Your task to perform on an android device: Go to ESPN.com Image 0: 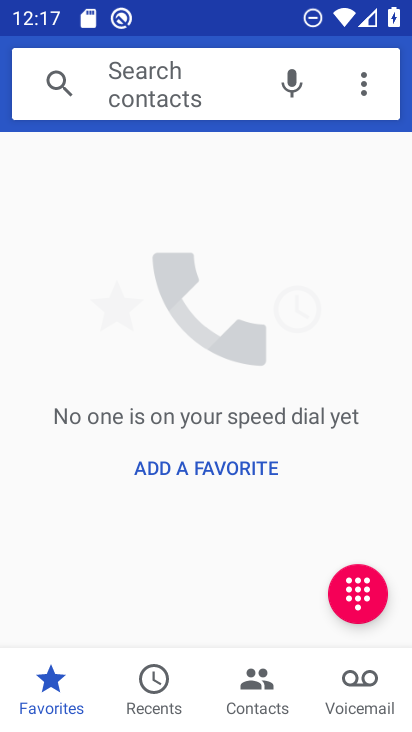
Step 0: press home button
Your task to perform on an android device: Go to ESPN.com Image 1: 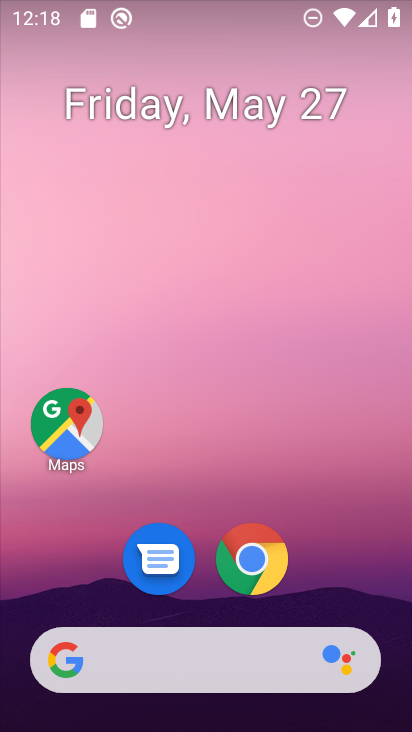
Step 1: click (253, 584)
Your task to perform on an android device: Go to ESPN.com Image 2: 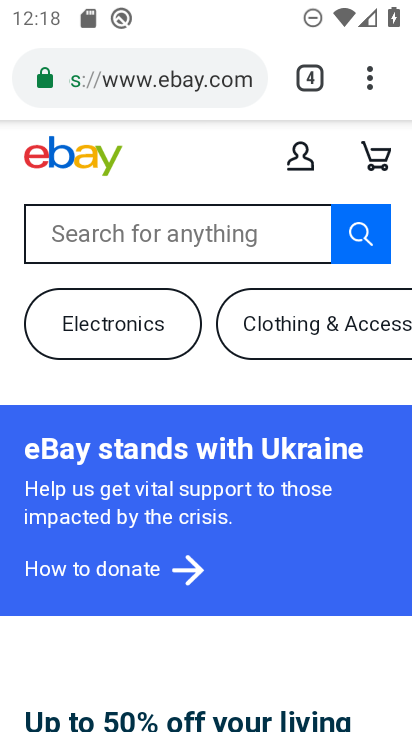
Step 2: click (151, 82)
Your task to perform on an android device: Go to ESPN.com Image 3: 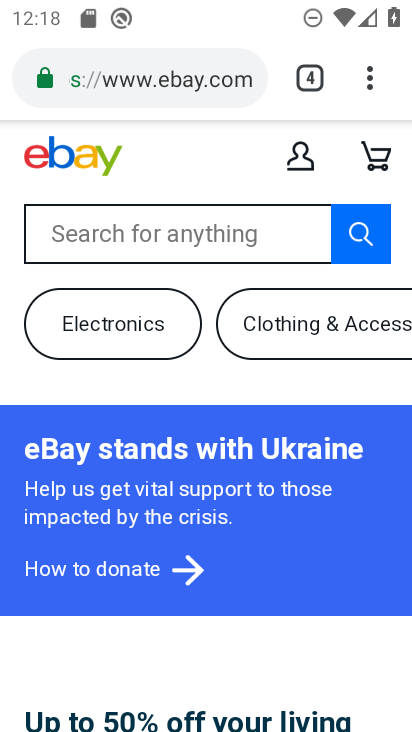
Step 3: click (151, 82)
Your task to perform on an android device: Go to ESPN.com Image 4: 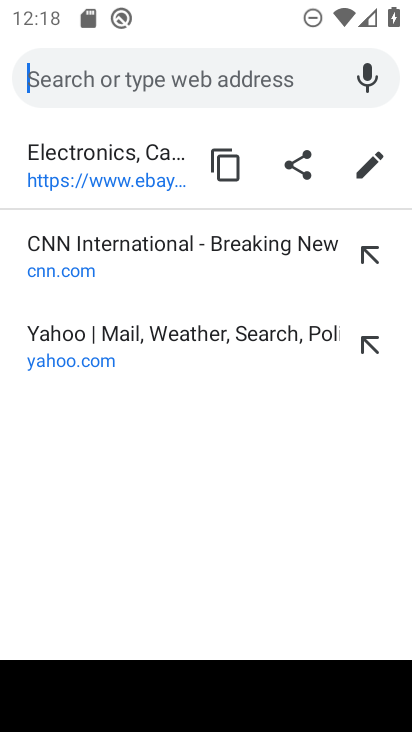
Step 4: type "espn.com"
Your task to perform on an android device: Go to ESPN.com Image 5: 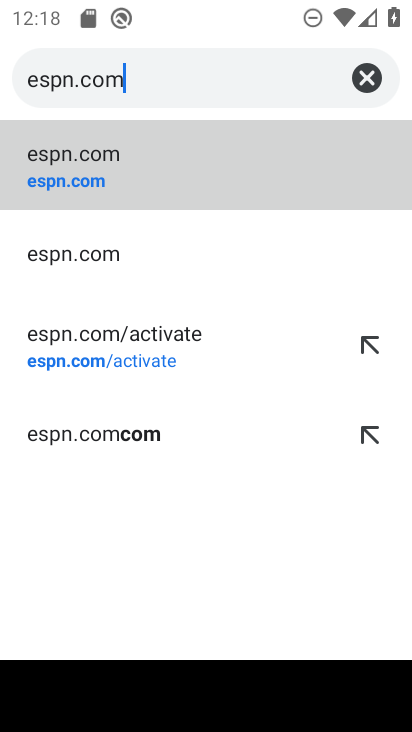
Step 5: click (349, 155)
Your task to perform on an android device: Go to ESPN.com Image 6: 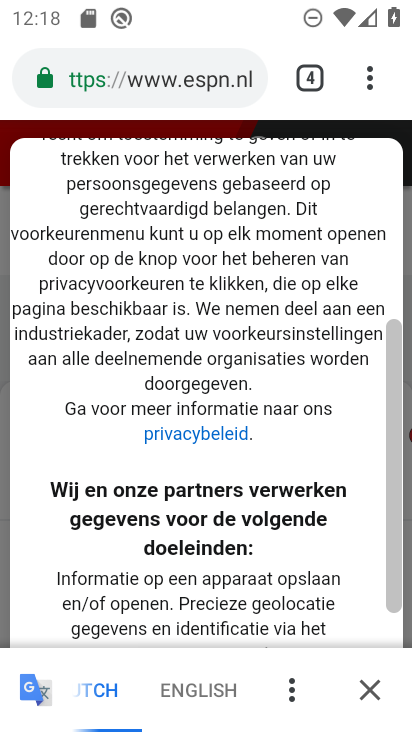
Step 6: click (367, 698)
Your task to perform on an android device: Go to ESPN.com Image 7: 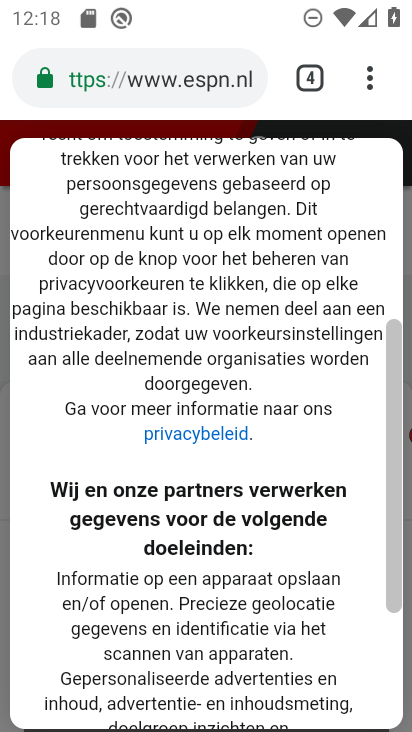
Step 7: task complete